Your task to perform on an android device: Go to privacy settings Image 0: 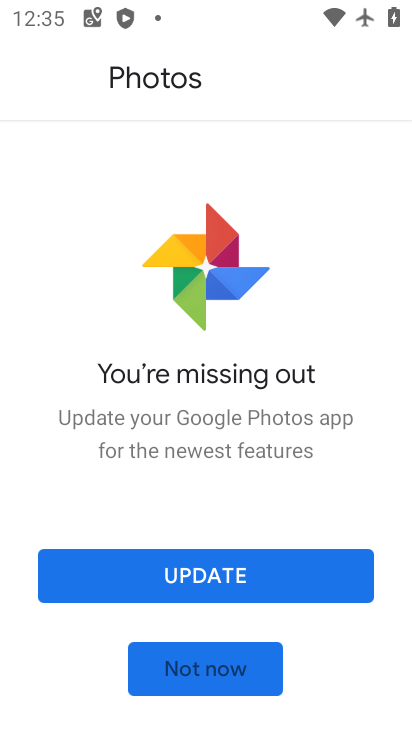
Step 0: press home button
Your task to perform on an android device: Go to privacy settings Image 1: 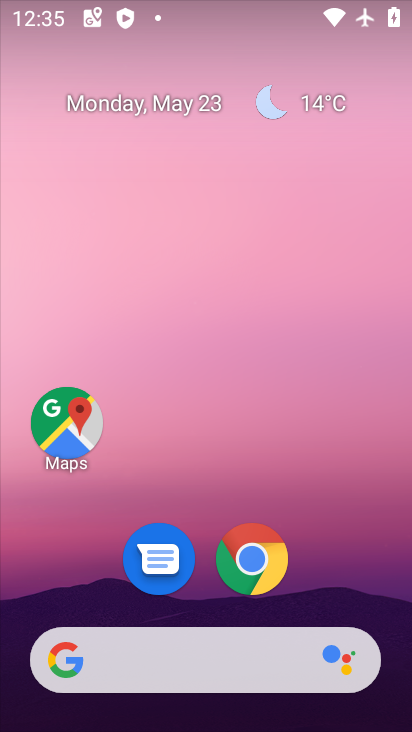
Step 1: drag from (324, 611) to (390, 26)
Your task to perform on an android device: Go to privacy settings Image 2: 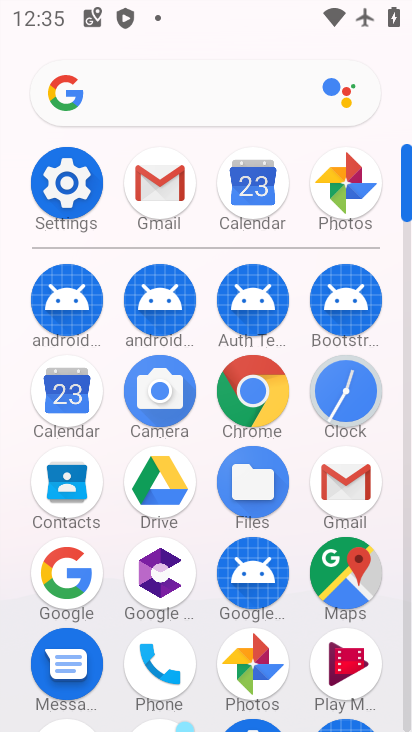
Step 2: click (58, 186)
Your task to perform on an android device: Go to privacy settings Image 3: 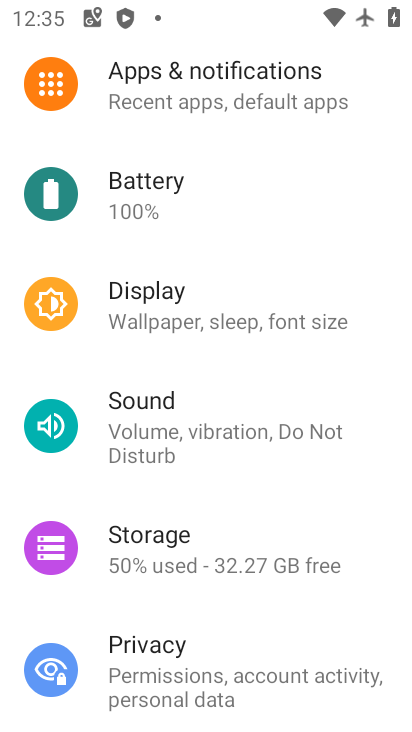
Step 3: click (159, 671)
Your task to perform on an android device: Go to privacy settings Image 4: 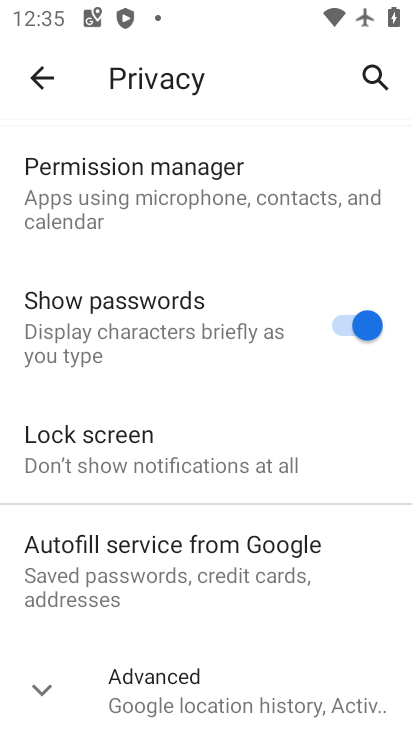
Step 4: task complete